Your task to perform on an android device: turn off smart reply in the gmail app Image 0: 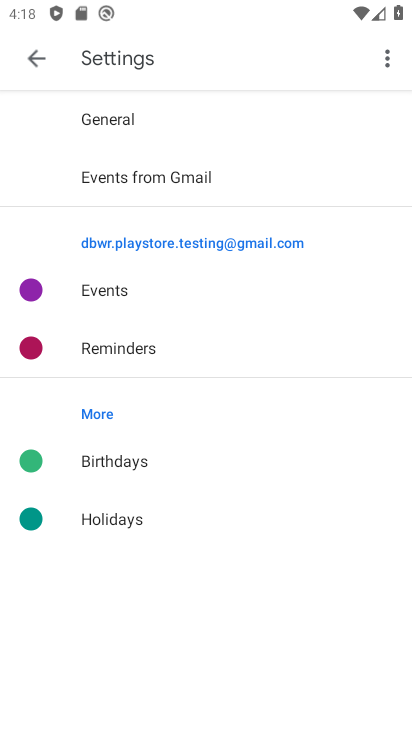
Step 0: press home button
Your task to perform on an android device: turn off smart reply in the gmail app Image 1: 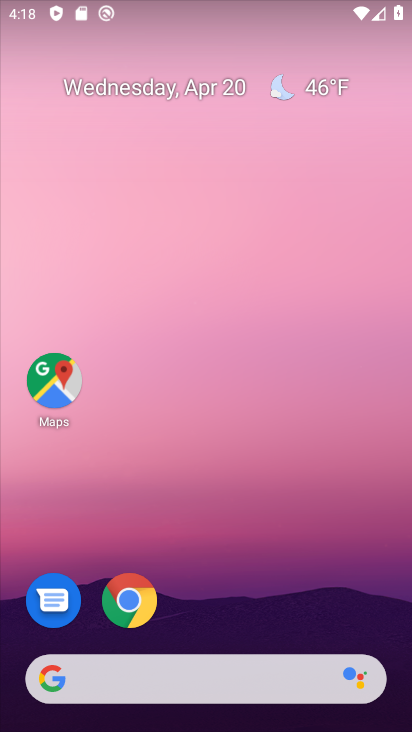
Step 1: drag from (210, 628) to (208, 92)
Your task to perform on an android device: turn off smart reply in the gmail app Image 2: 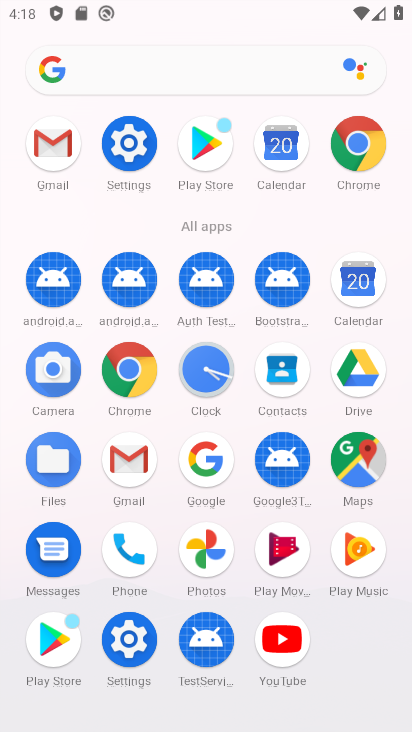
Step 2: click (124, 450)
Your task to perform on an android device: turn off smart reply in the gmail app Image 3: 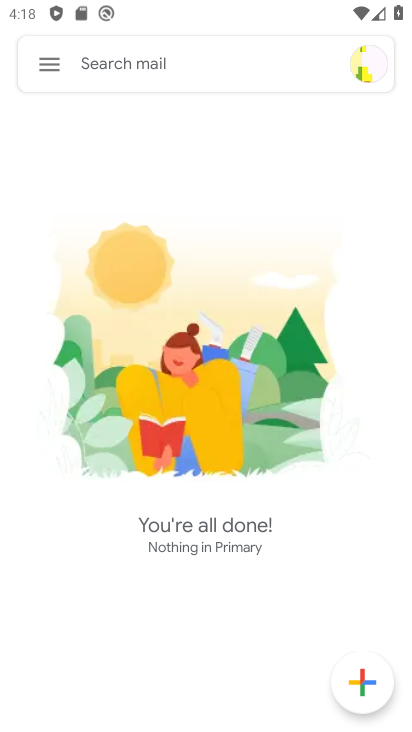
Step 3: click (42, 60)
Your task to perform on an android device: turn off smart reply in the gmail app Image 4: 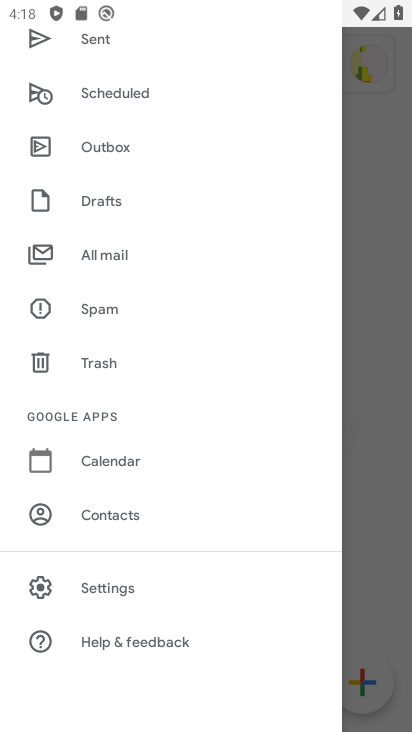
Step 4: click (140, 586)
Your task to perform on an android device: turn off smart reply in the gmail app Image 5: 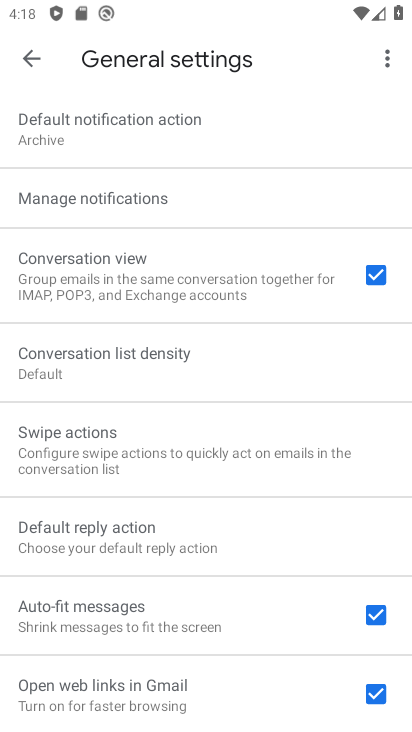
Step 5: drag from (236, 680) to (225, 342)
Your task to perform on an android device: turn off smart reply in the gmail app Image 6: 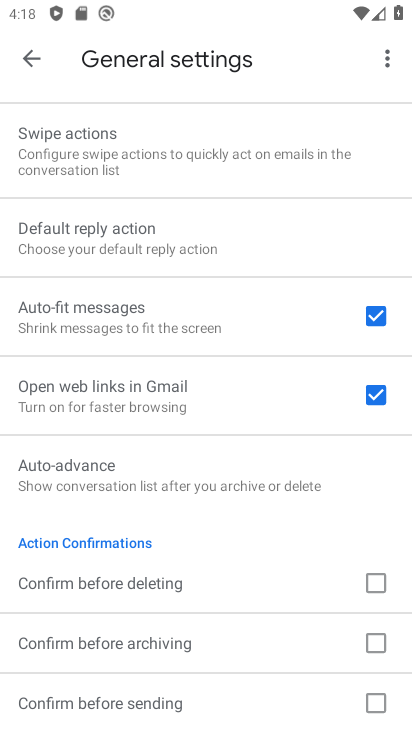
Step 6: click (44, 64)
Your task to perform on an android device: turn off smart reply in the gmail app Image 7: 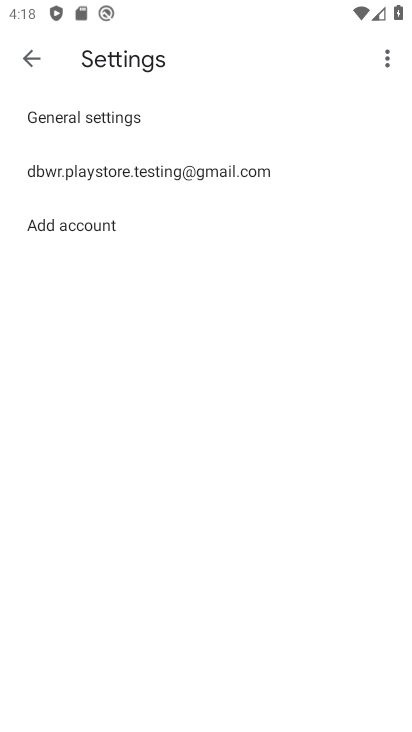
Step 7: click (283, 166)
Your task to perform on an android device: turn off smart reply in the gmail app Image 8: 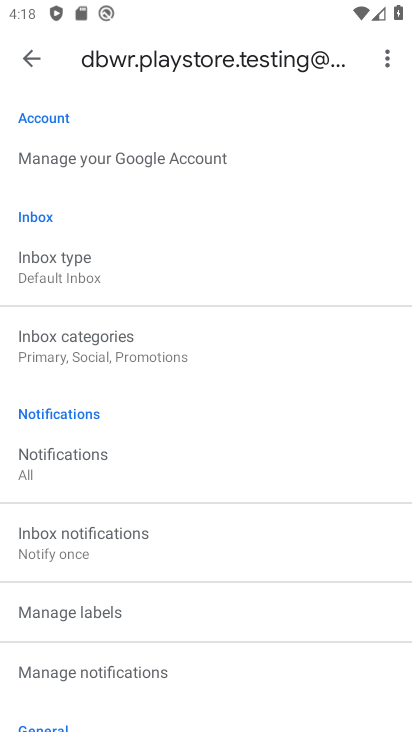
Step 8: drag from (221, 674) to (215, 155)
Your task to perform on an android device: turn off smart reply in the gmail app Image 9: 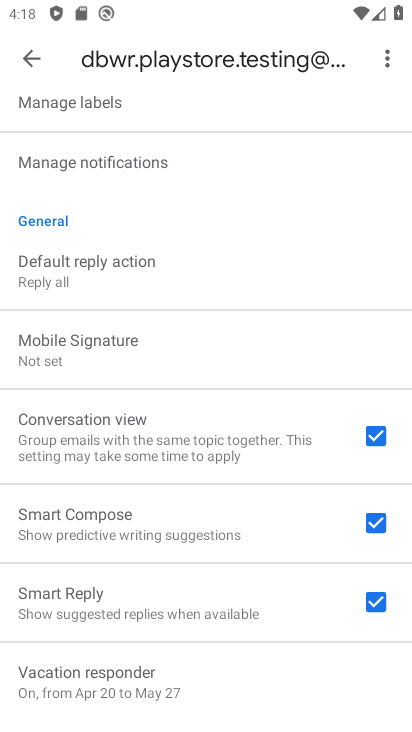
Step 9: click (374, 601)
Your task to perform on an android device: turn off smart reply in the gmail app Image 10: 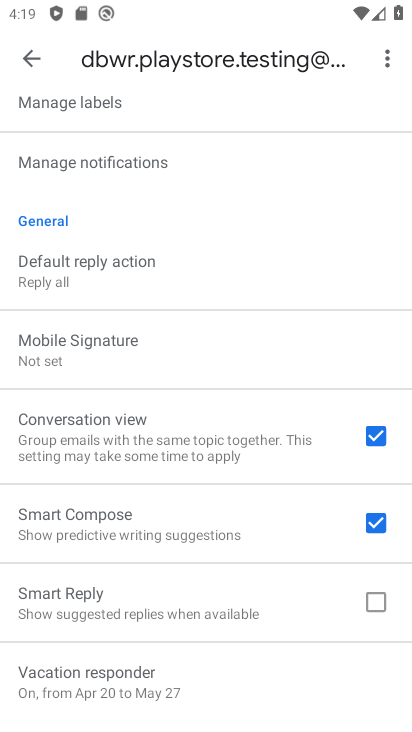
Step 10: task complete